Your task to perform on an android device: add a label to a message in the gmail app Image 0: 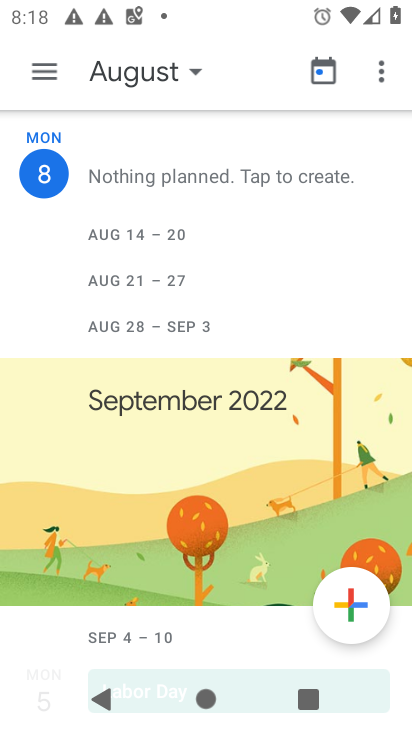
Step 0: press home button
Your task to perform on an android device: add a label to a message in the gmail app Image 1: 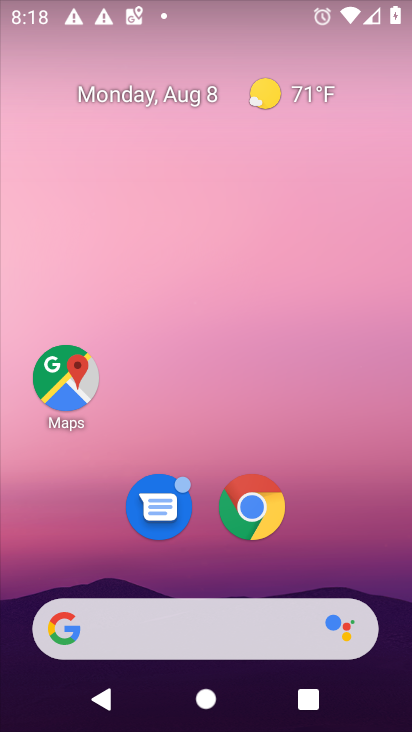
Step 1: drag from (206, 581) to (172, 43)
Your task to perform on an android device: add a label to a message in the gmail app Image 2: 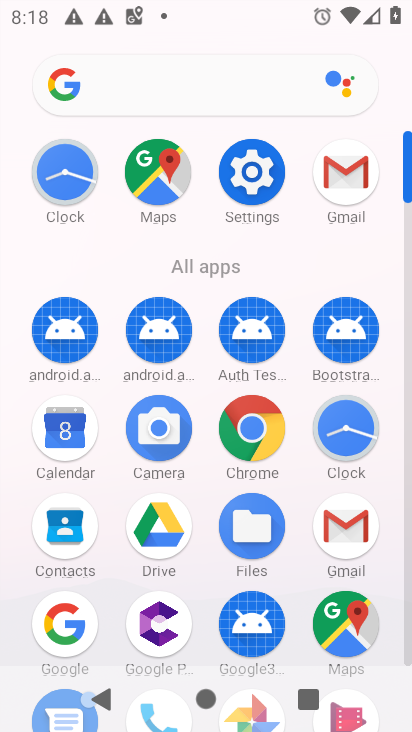
Step 2: click (344, 543)
Your task to perform on an android device: add a label to a message in the gmail app Image 3: 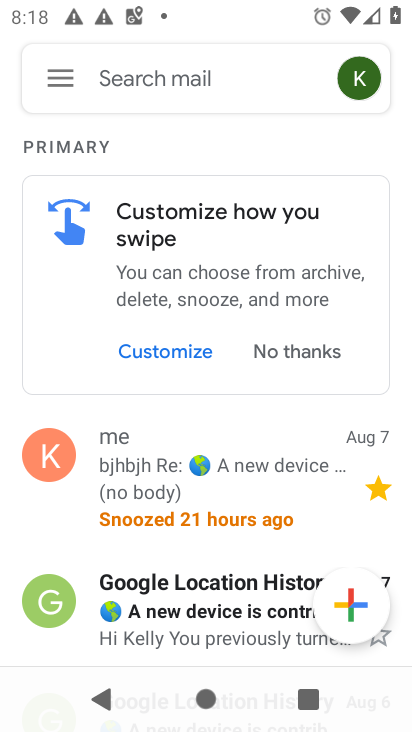
Step 3: click (209, 474)
Your task to perform on an android device: add a label to a message in the gmail app Image 4: 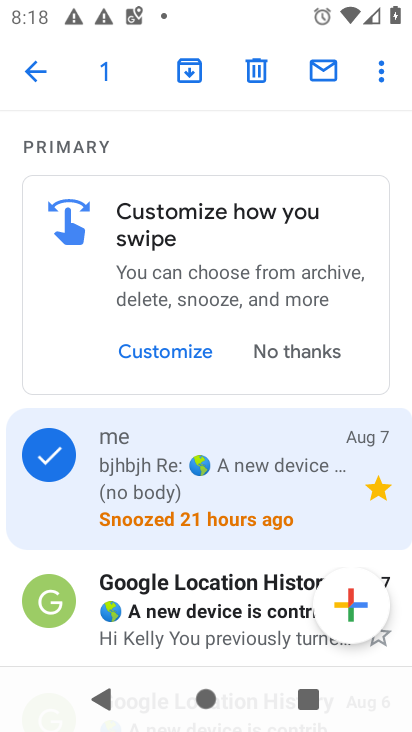
Step 4: click (380, 64)
Your task to perform on an android device: add a label to a message in the gmail app Image 5: 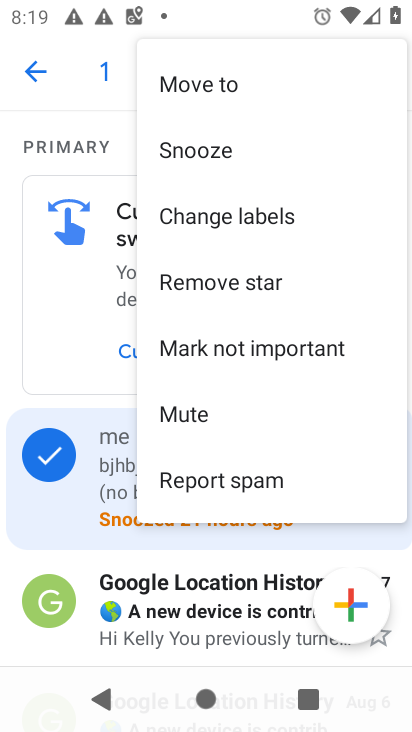
Step 5: click (221, 218)
Your task to perform on an android device: add a label to a message in the gmail app Image 6: 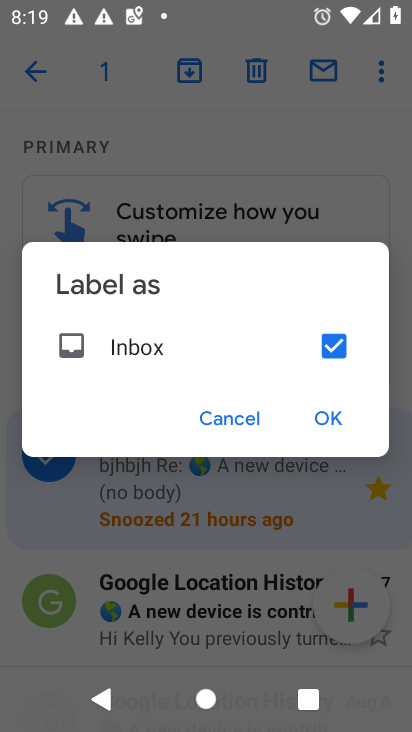
Step 6: click (337, 330)
Your task to perform on an android device: add a label to a message in the gmail app Image 7: 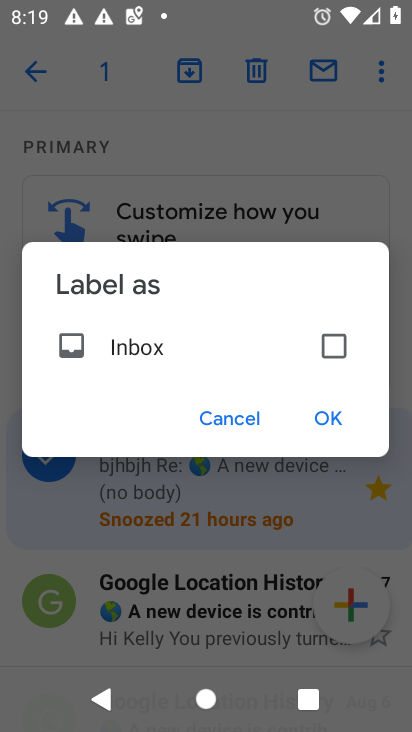
Step 7: click (326, 412)
Your task to perform on an android device: add a label to a message in the gmail app Image 8: 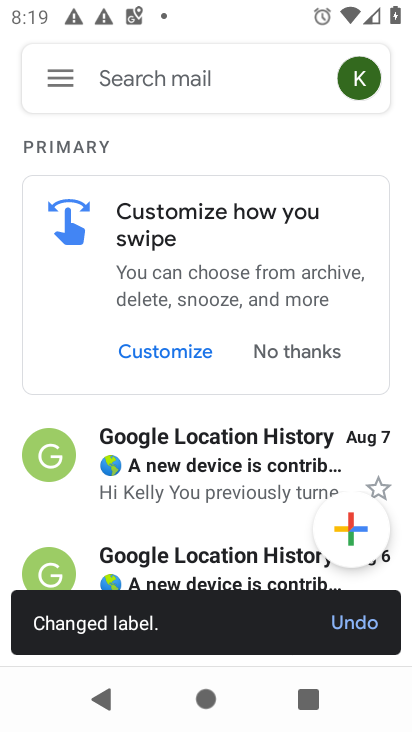
Step 8: task complete